Your task to perform on an android device: change timer sound Image 0: 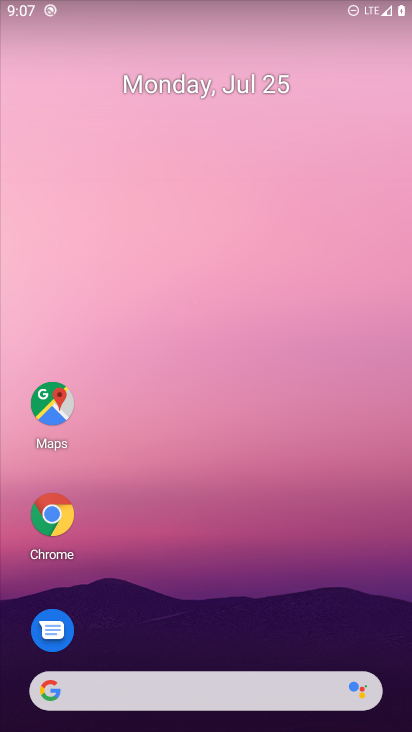
Step 0: drag from (12, 682) to (212, 125)
Your task to perform on an android device: change timer sound Image 1: 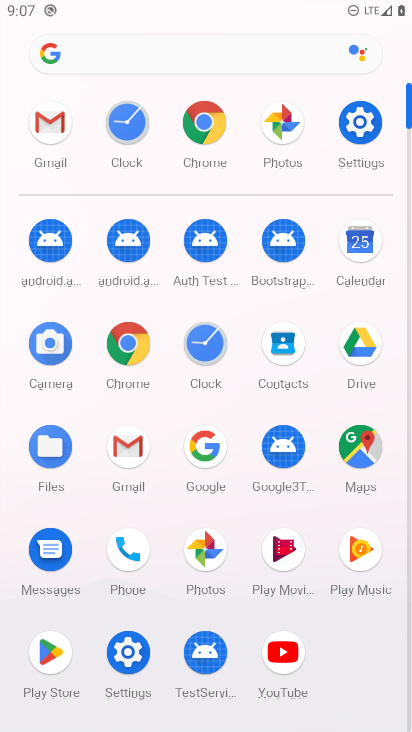
Step 1: click (201, 354)
Your task to perform on an android device: change timer sound Image 2: 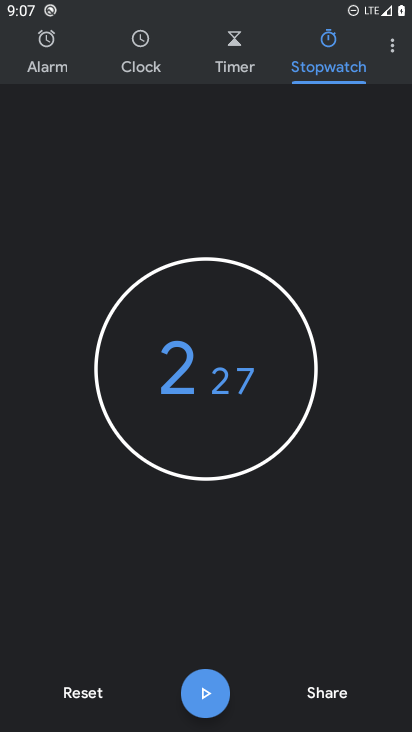
Step 2: click (247, 58)
Your task to perform on an android device: change timer sound Image 3: 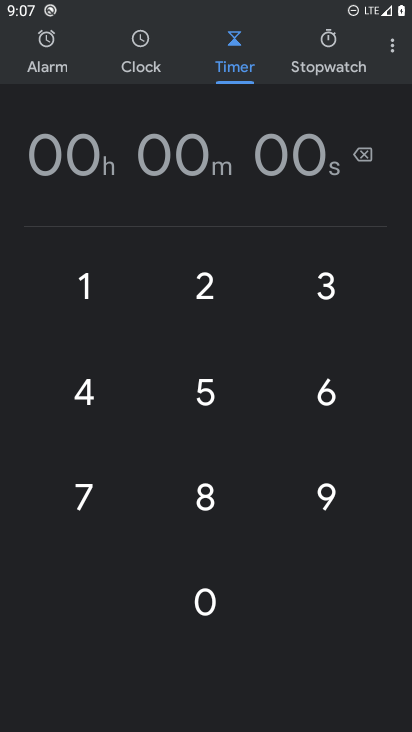
Step 3: click (394, 51)
Your task to perform on an android device: change timer sound Image 4: 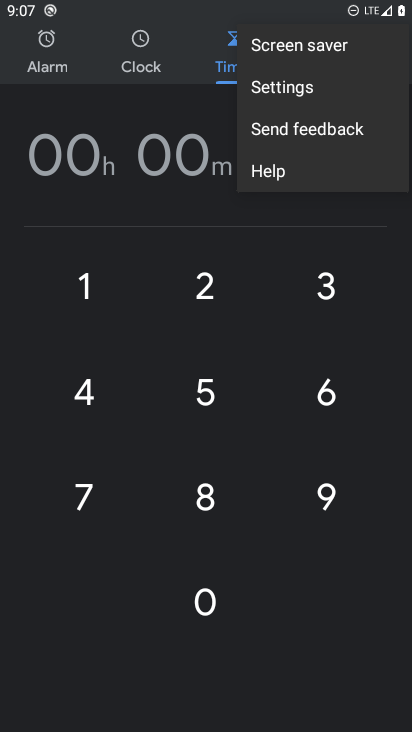
Step 4: click (287, 99)
Your task to perform on an android device: change timer sound Image 5: 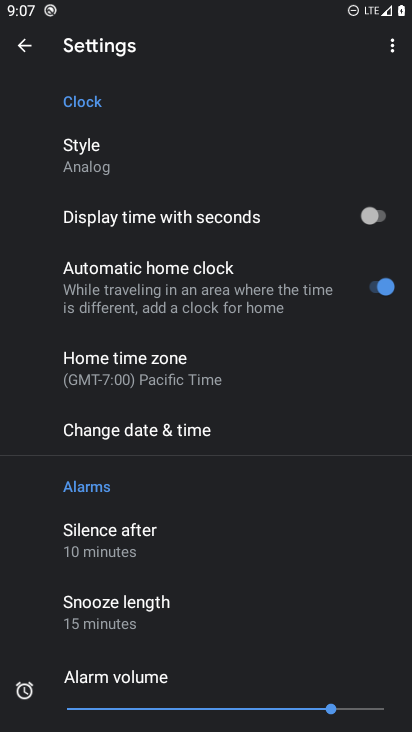
Step 5: drag from (266, 573) to (304, 63)
Your task to perform on an android device: change timer sound Image 6: 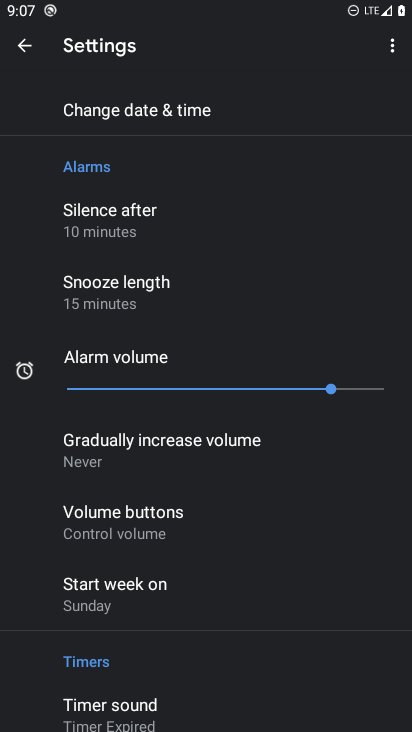
Step 6: click (115, 698)
Your task to perform on an android device: change timer sound Image 7: 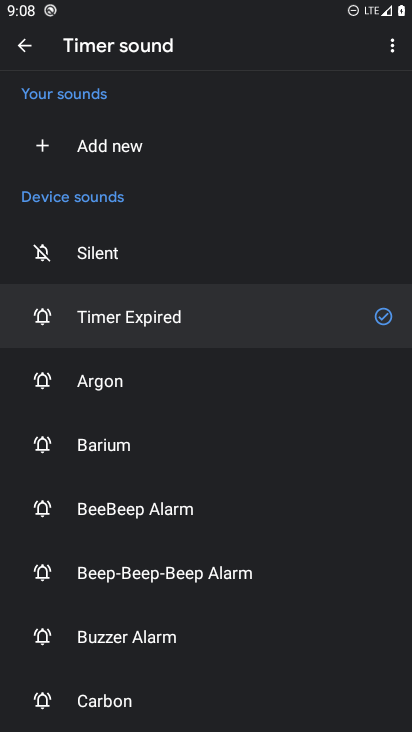
Step 7: click (135, 501)
Your task to perform on an android device: change timer sound Image 8: 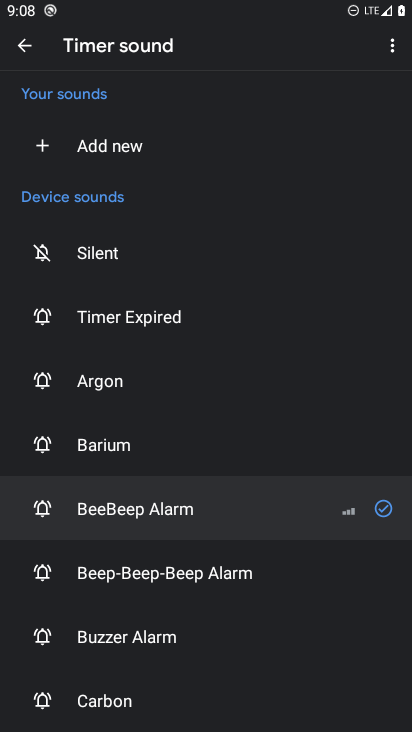
Step 8: task complete